Your task to perform on an android device: Open privacy settings Image 0: 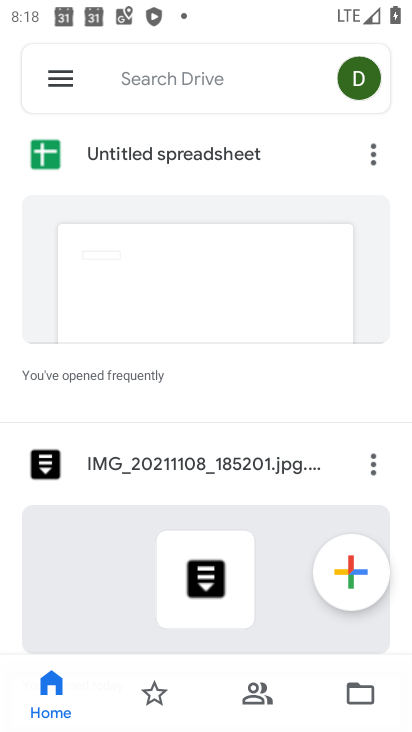
Step 0: press home button
Your task to perform on an android device: Open privacy settings Image 1: 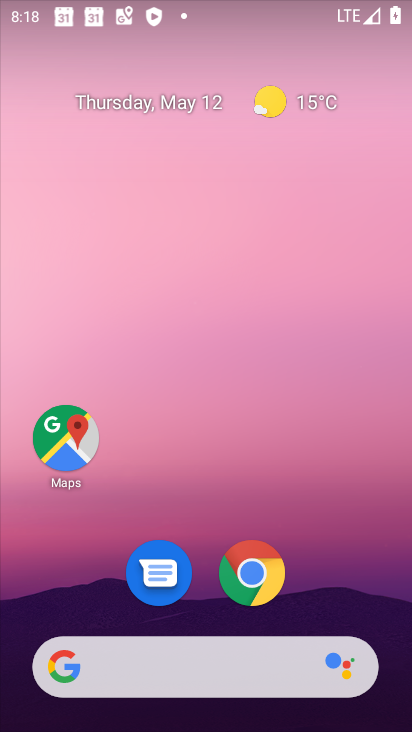
Step 1: drag from (313, 504) to (232, 102)
Your task to perform on an android device: Open privacy settings Image 2: 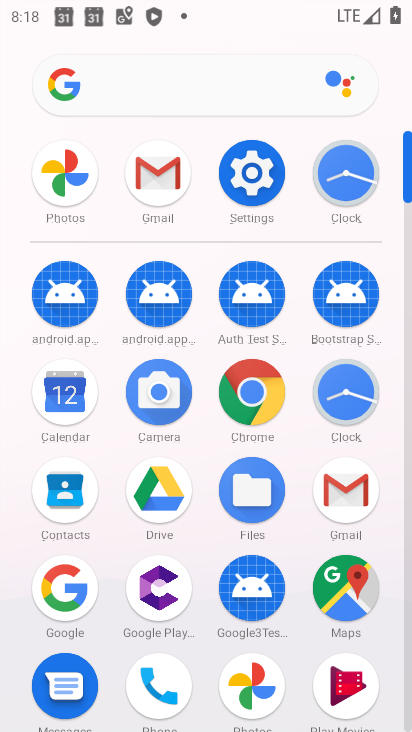
Step 2: click (263, 175)
Your task to perform on an android device: Open privacy settings Image 3: 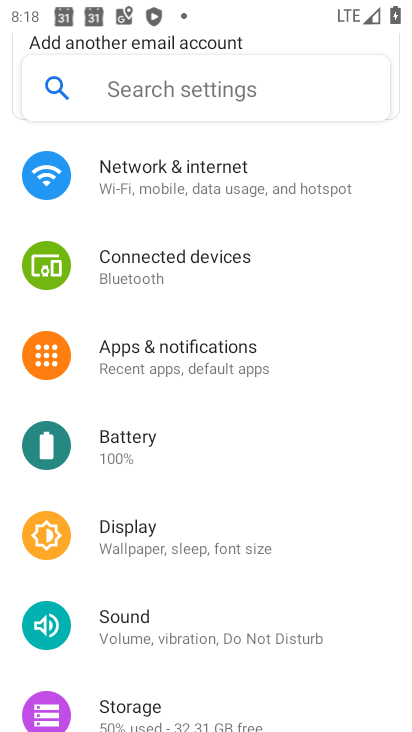
Step 3: drag from (165, 584) to (117, 403)
Your task to perform on an android device: Open privacy settings Image 4: 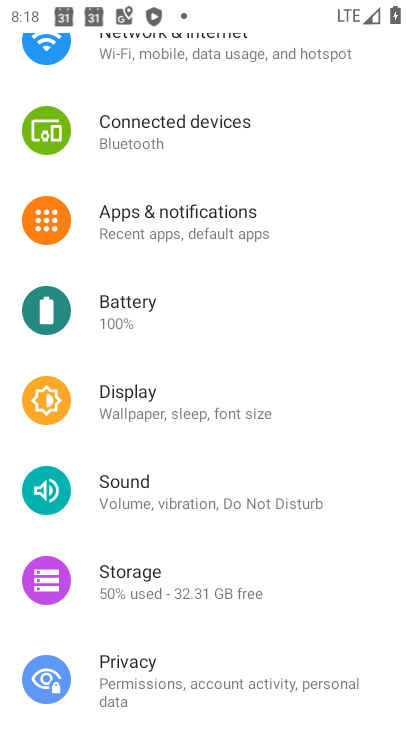
Step 4: click (128, 674)
Your task to perform on an android device: Open privacy settings Image 5: 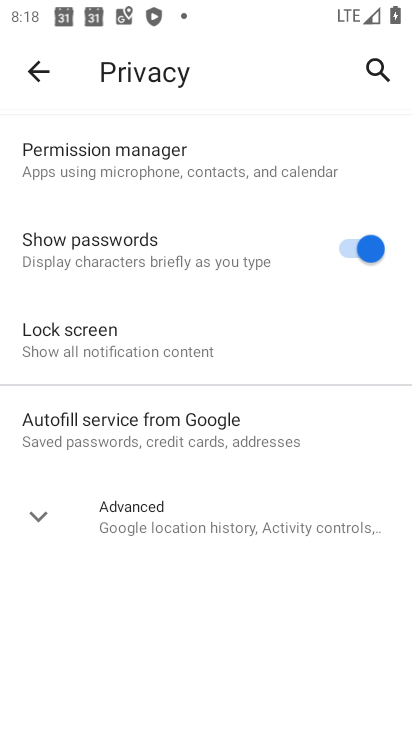
Step 5: task complete